Your task to perform on an android device: change text size in settings app Image 0: 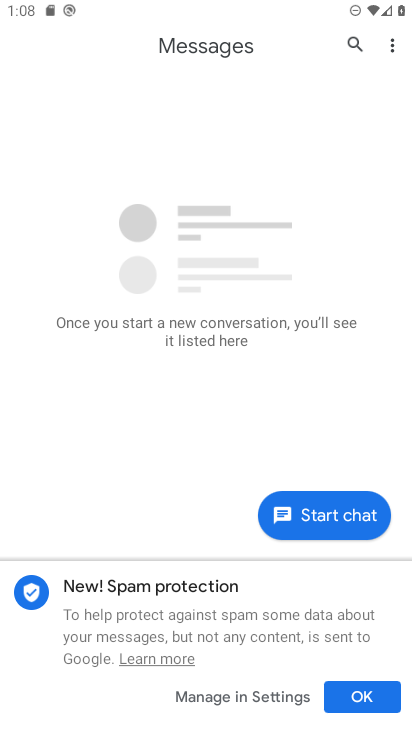
Step 0: press back button
Your task to perform on an android device: change text size in settings app Image 1: 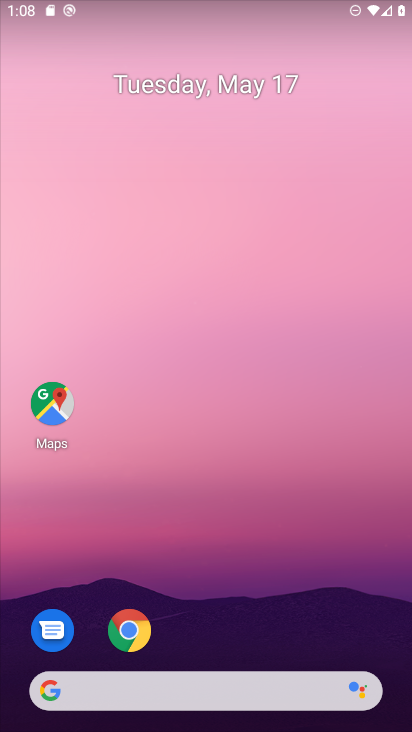
Step 1: drag from (286, 624) to (313, 93)
Your task to perform on an android device: change text size in settings app Image 2: 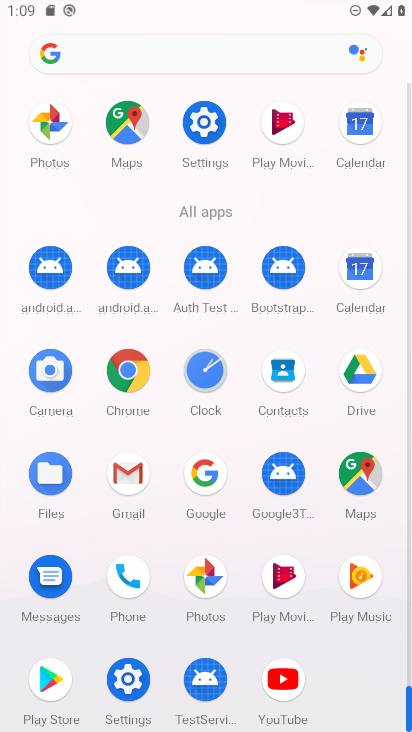
Step 2: click (202, 122)
Your task to perform on an android device: change text size in settings app Image 3: 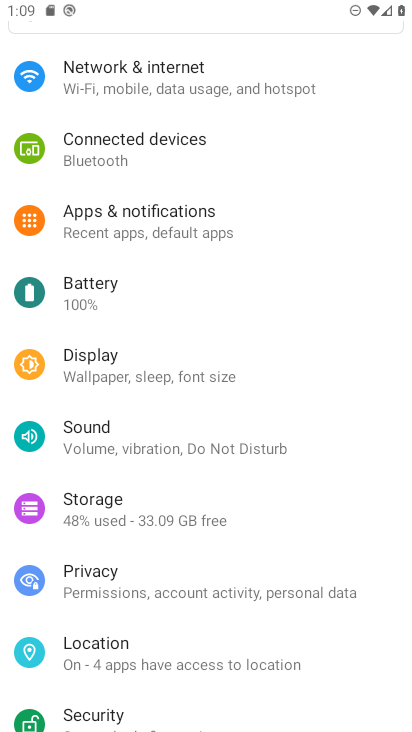
Step 3: drag from (183, 474) to (216, 392)
Your task to perform on an android device: change text size in settings app Image 4: 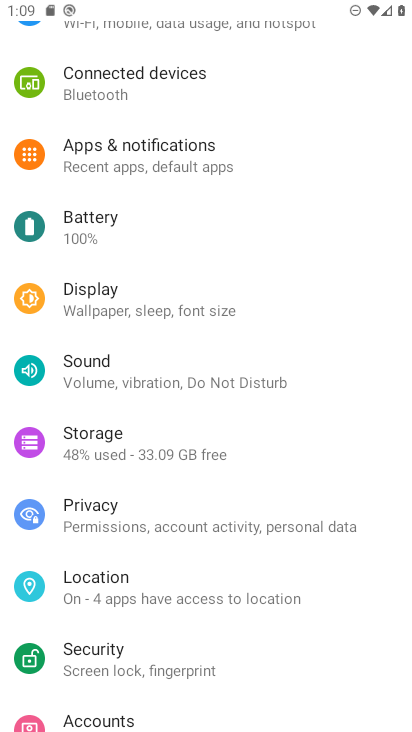
Step 4: drag from (154, 558) to (200, 463)
Your task to perform on an android device: change text size in settings app Image 5: 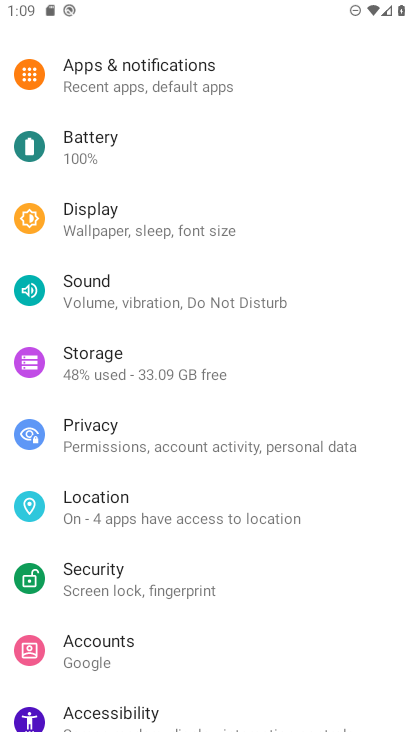
Step 5: drag from (134, 644) to (179, 542)
Your task to perform on an android device: change text size in settings app Image 6: 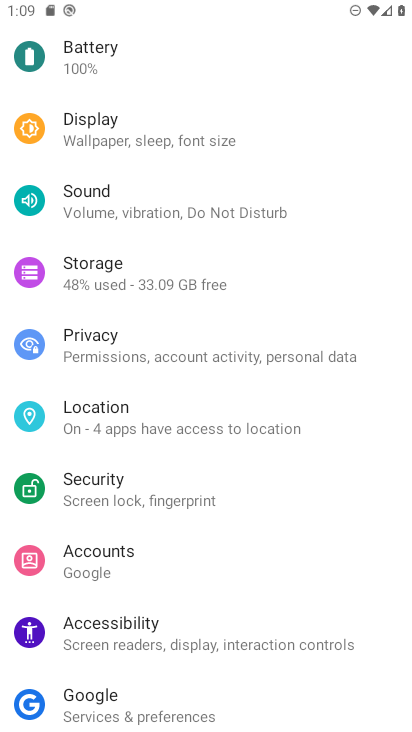
Step 6: click (97, 630)
Your task to perform on an android device: change text size in settings app Image 7: 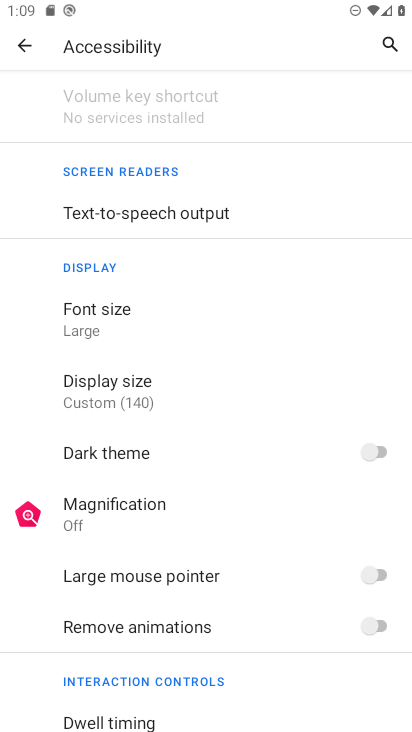
Step 7: click (125, 303)
Your task to perform on an android device: change text size in settings app Image 8: 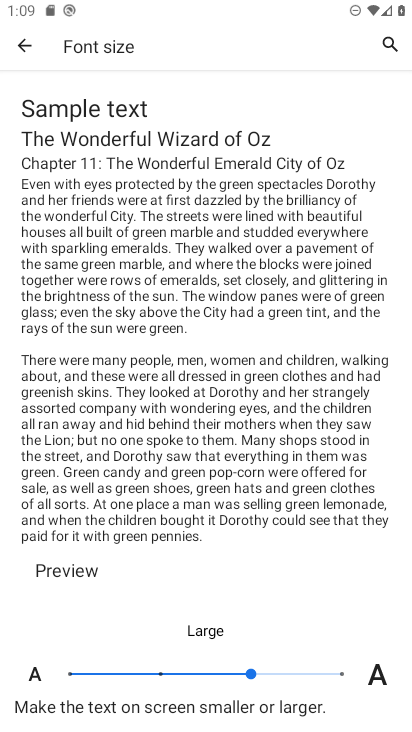
Step 8: click (163, 675)
Your task to perform on an android device: change text size in settings app Image 9: 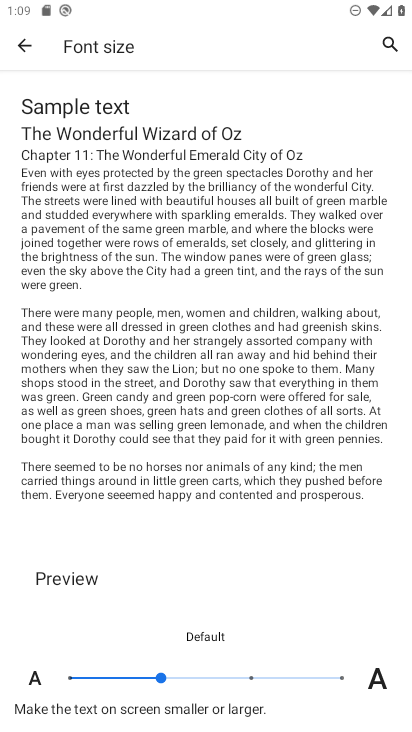
Step 9: task complete